Your task to perform on an android device: install app "Messenger Lite" Image 0: 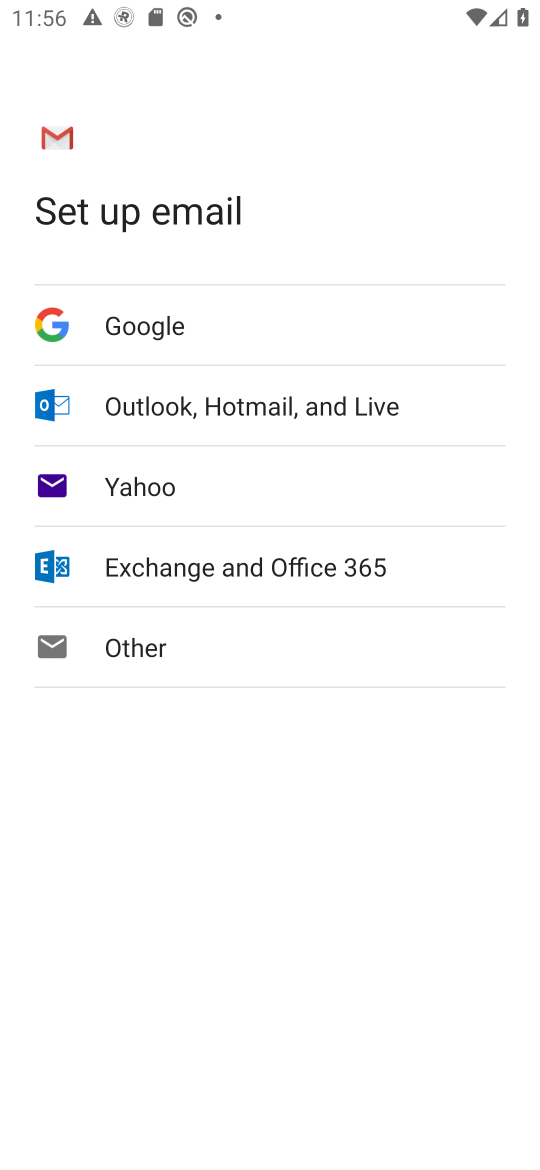
Step 0: press home button
Your task to perform on an android device: install app "Messenger Lite" Image 1: 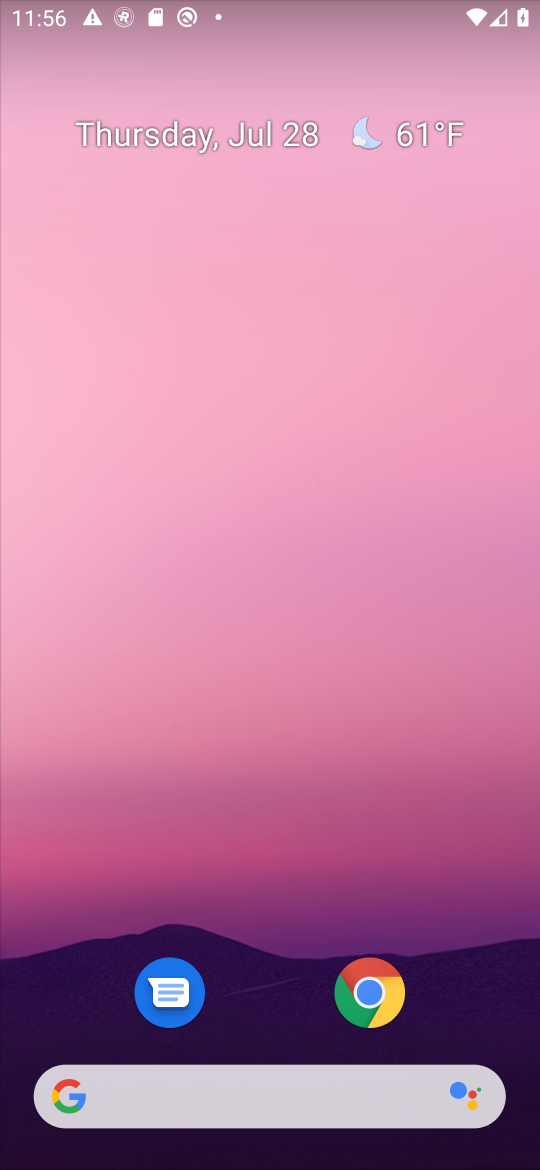
Step 1: drag from (249, 1032) to (198, 152)
Your task to perform on an android device: install app "Messenger Lite" Image 2: 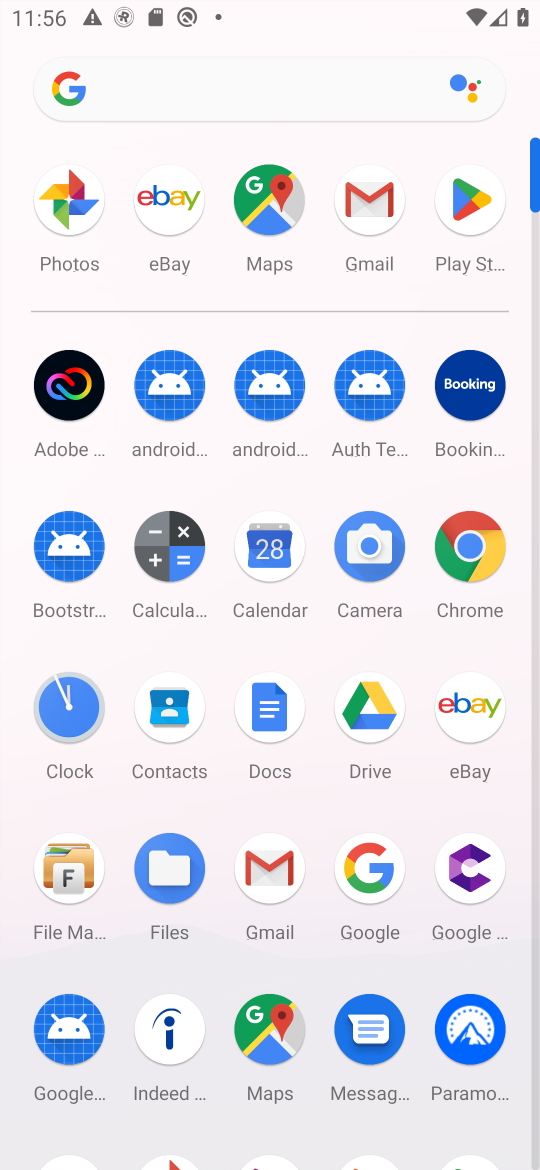
Step 2: click (461, 196)
Your task to perform on an android device: install app "Messenger Lite" Image 3: 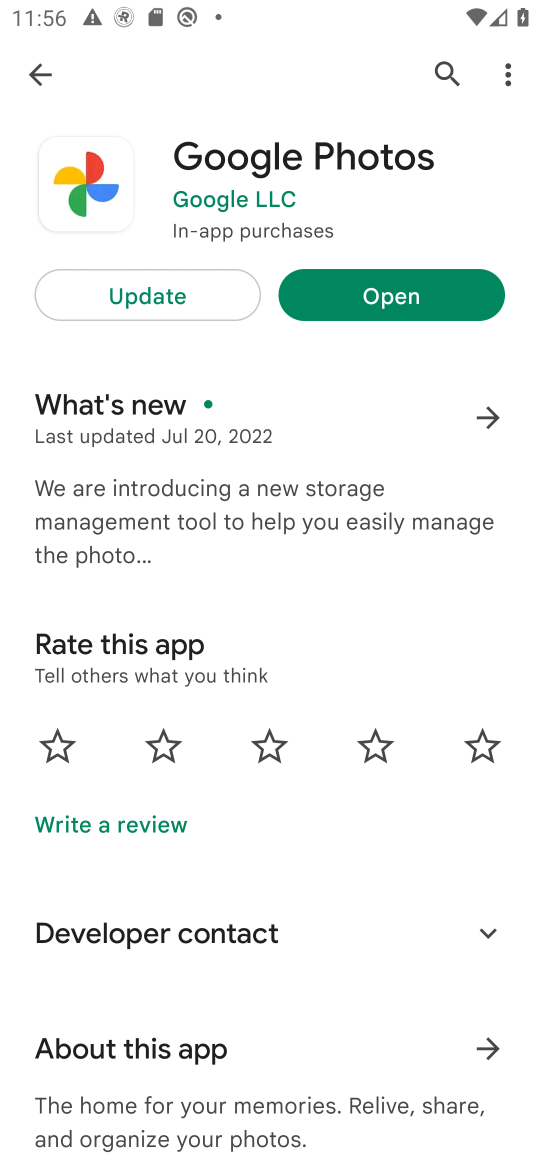
Step 3: click (444, 69)
Your task to perform on an android device: install app "Messenger Lite" Image 4: 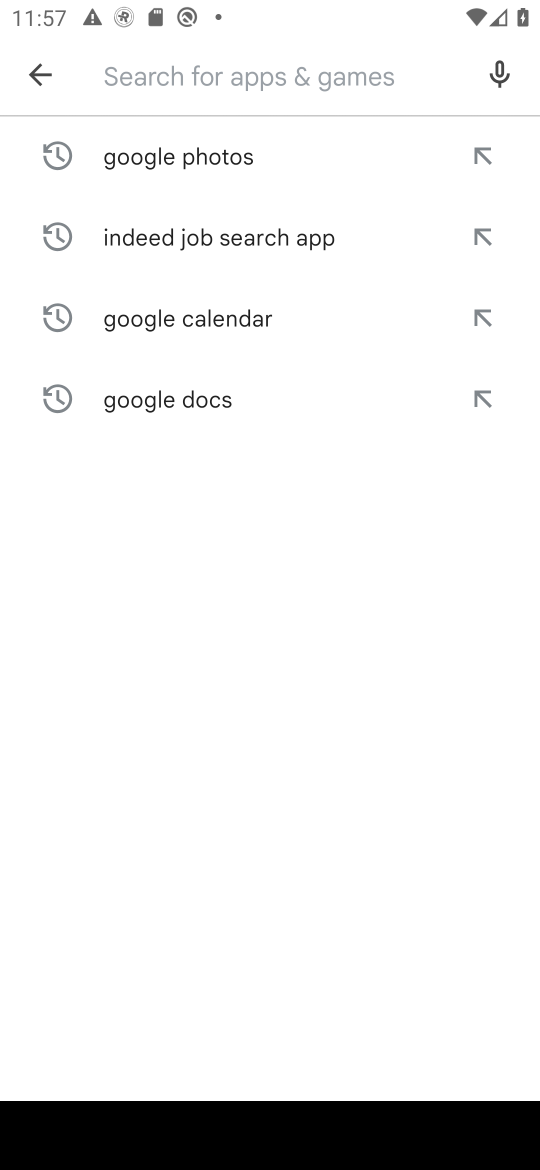
Step 4: type "Messenger Lite"
Your task to perform on an android device: install app "Messenger Lite" Image 5: 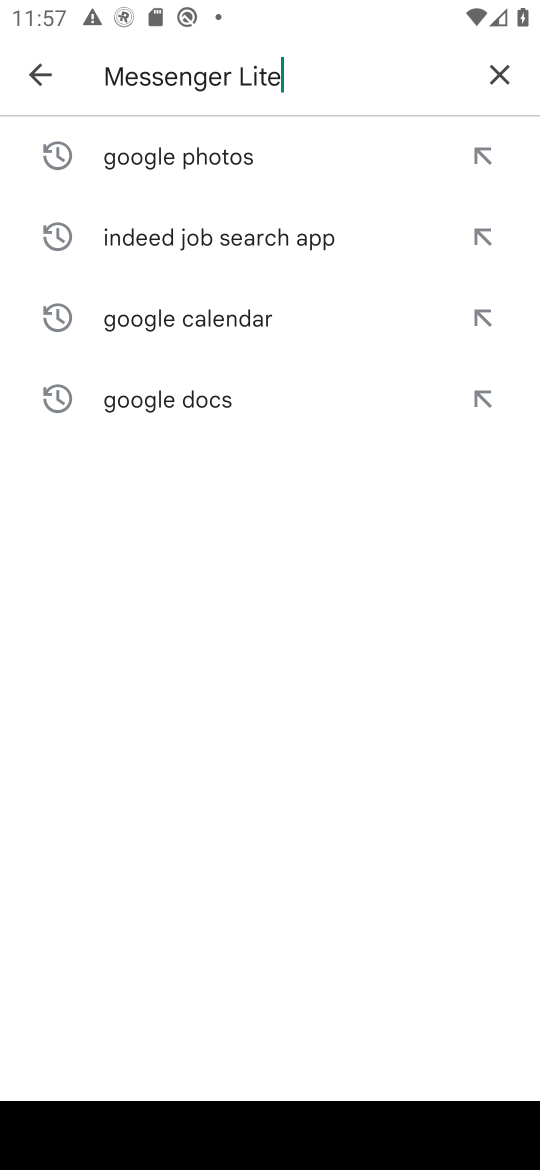
Step 5: type ""
Your task to perform on an android device: install app "Messenger Lite" Image 6: 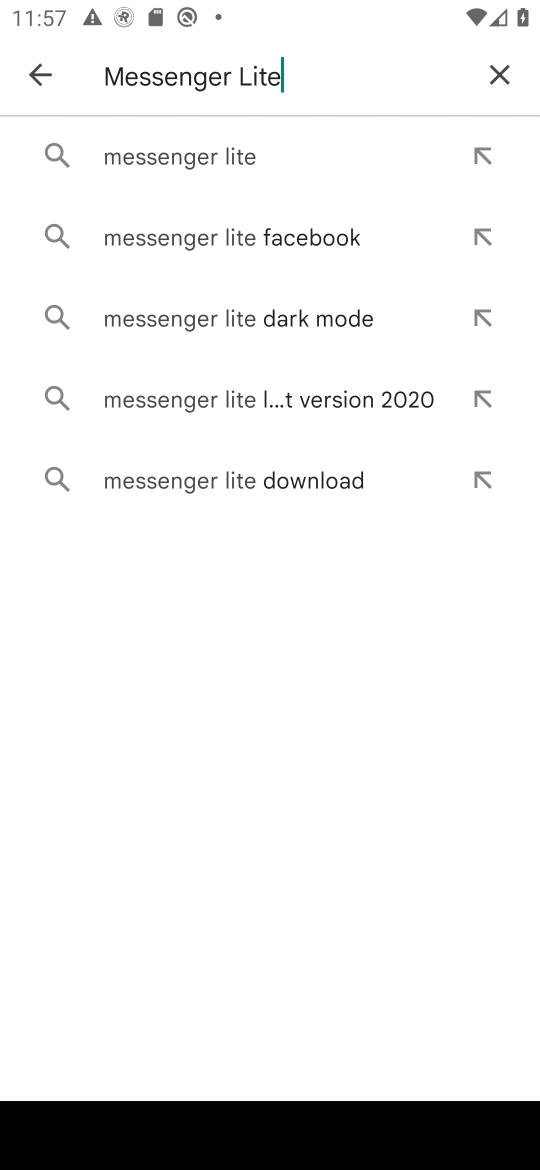
Step 6: click (199, 153)
Your task to perform on an android device: install app "Messenger Lite" Image 7: 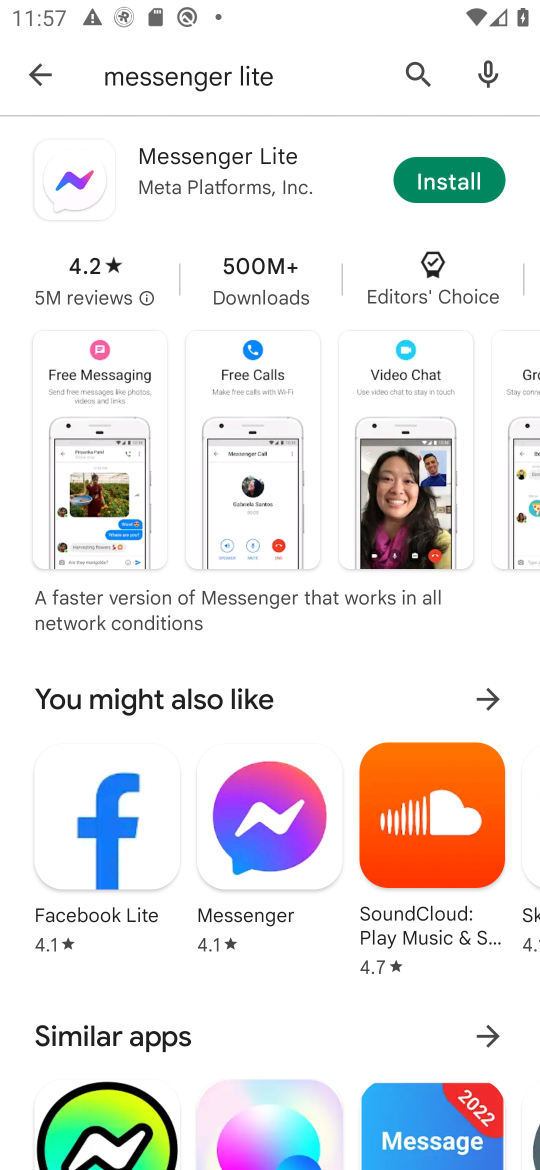
Step 7: click (449, 179)
Your task to perform on an android device: install app "Messenger Lite" Image 8: 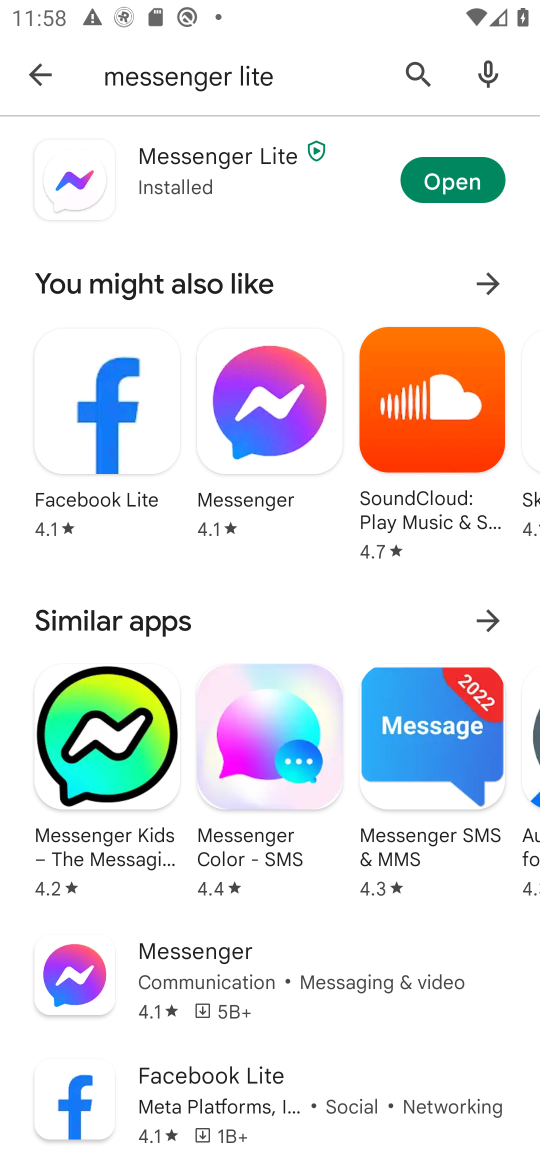
Step 8: task complete